Your task to perform on an android device: Open the calendar app, open the side menu, and click the "Day" option Image 0: 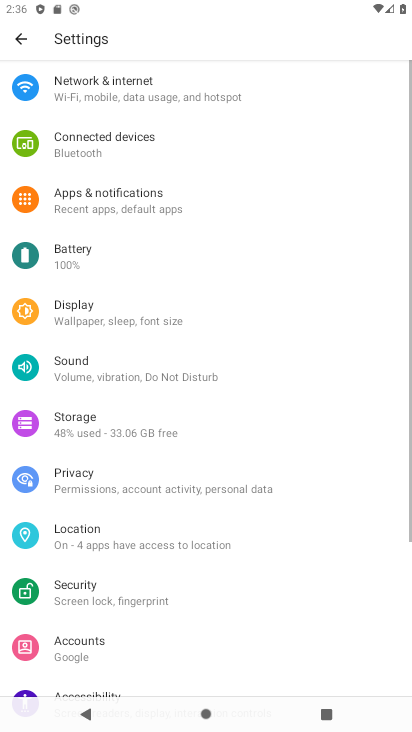
Step 0: press home button
Your task to perform on an android device: Open the calendar app, open the side menu, and click the "Day" option Image 1: 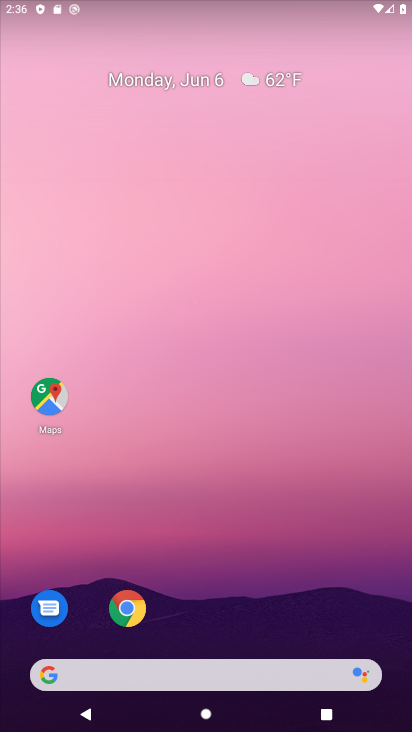
Step 1: drag from (222, 611) to (250, 8)
Your task to perform on an android device: Open the calendar app, open the side menu, and click the "Day" option Image 2: 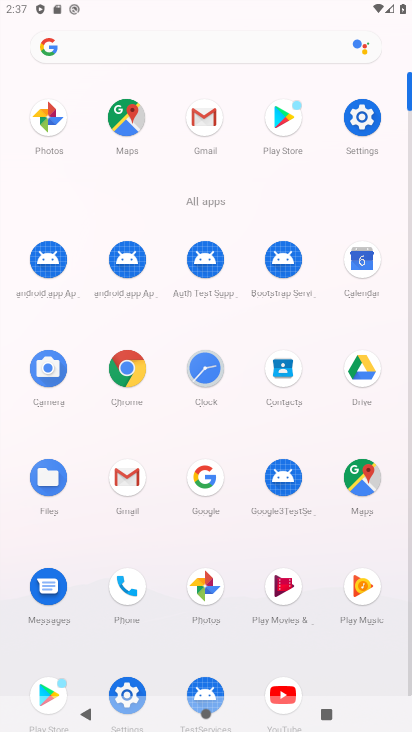
Step 2: click (365, 257)
Your task to perform on an android device: Open the calendar app, open the side menu, and click the "Day" option Image 3: 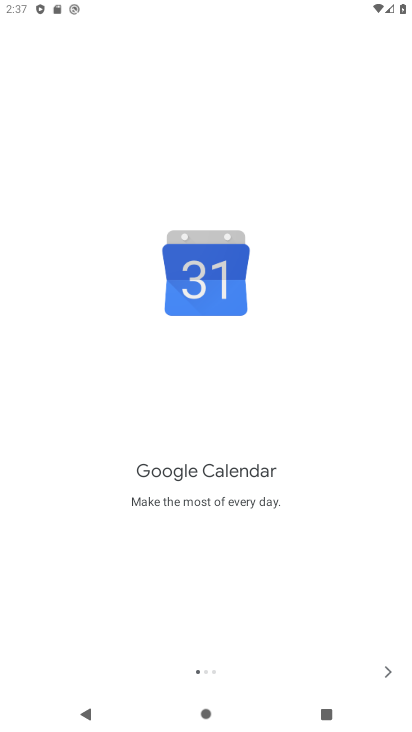
Step 3: click (387, 668)
Your task to perform on an android device: Open the calendar app, open the side menu, and click the "Day" option Image 4: 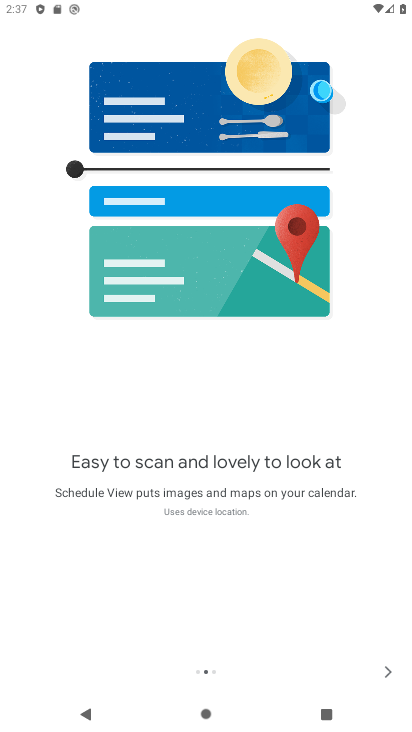
Step 4: click (387, 666)
Your task to perform on an android device: Open the calendar app, open the side menu, and click the "Day" option Image 5: 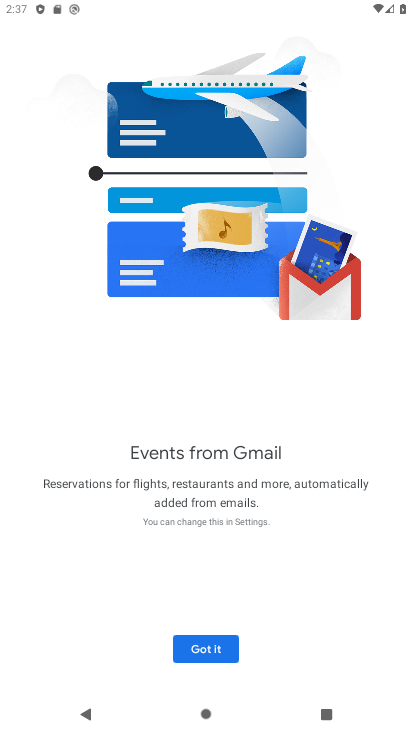
Step 5: click (188, 643)
Your task to perform on an android device: Open the calendar app, open the side menu, and click the "Day" option Image 6: 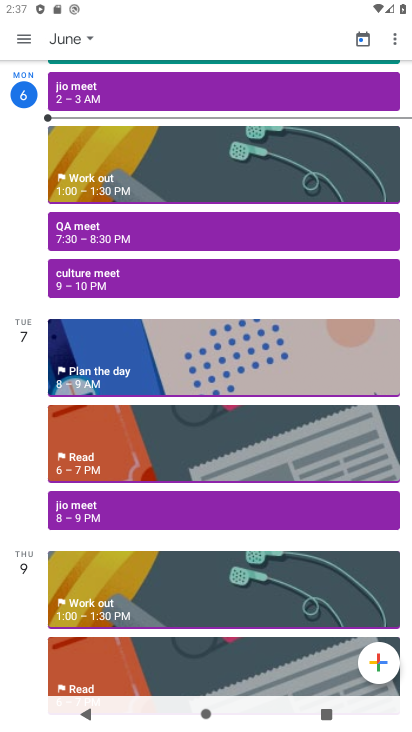
Step 6: click (25, 44)
Your task to perform on an android device: Open the calendar app, open the side menu, and click the "Day" option Image 7: 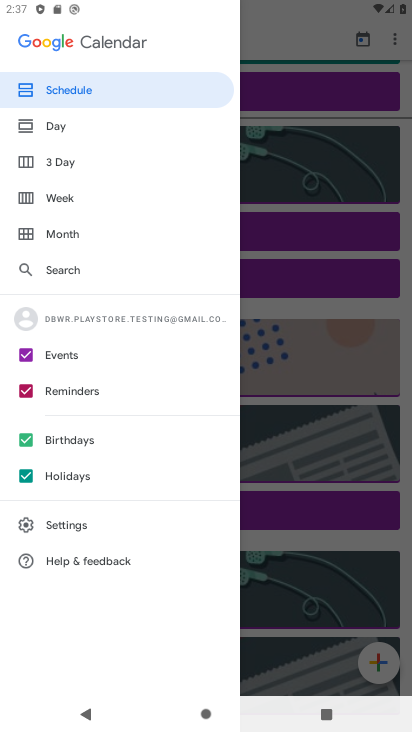
Step 7: click (83, 123)
Your task to perform on an android device: Open the calendar app, open the side menu, and click the "Day" option Image 8: 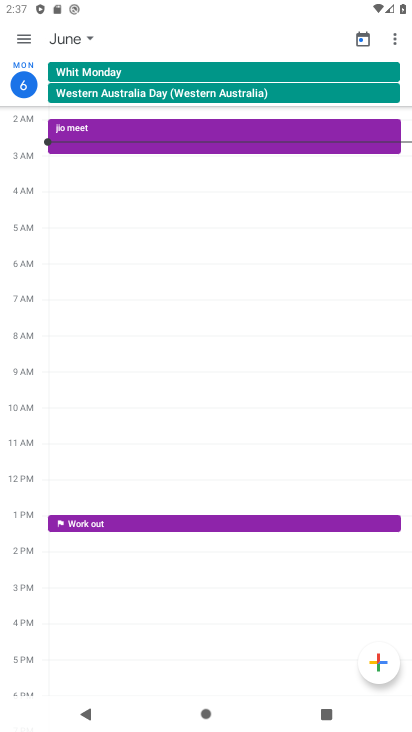
Step 8: task complete